Your task to perform on an android device: open the mobile data screen to see how much data has been used Image 0: 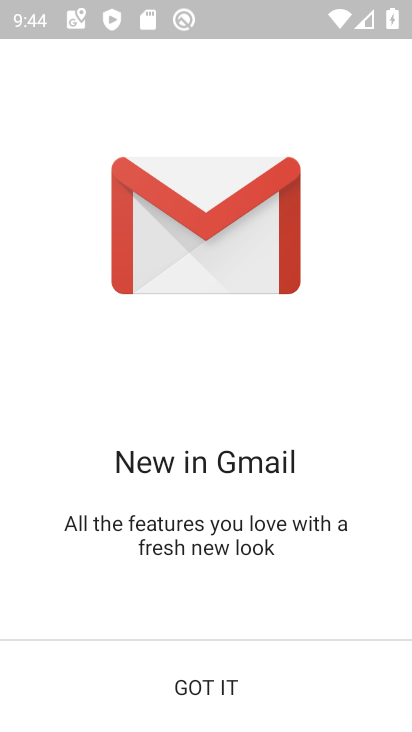
Step 0: click (212, 693)
Your task to perform on an android device: open the mobile data screen to see how much data has been used Image 1: 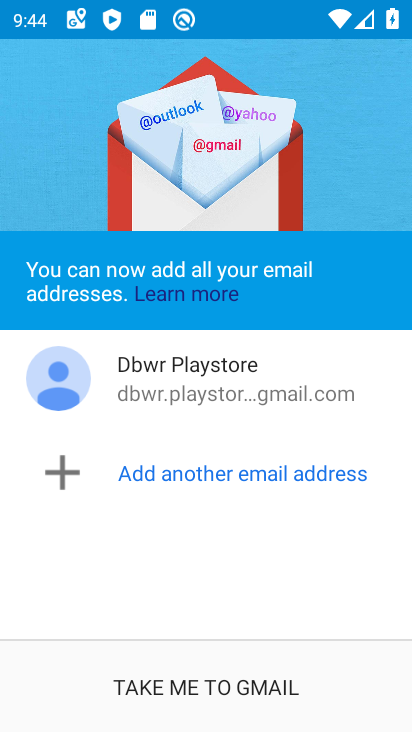
Step 1: click (201, 706)
Your task to perform on an android device: open the mobile data screen to see how much data has been used Image 2: 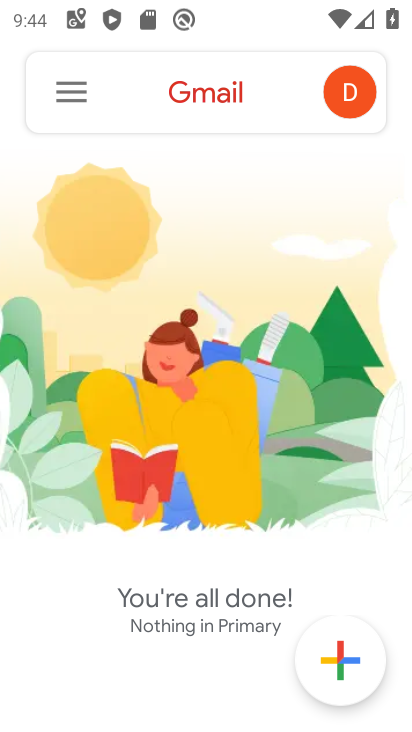
Step 2: press home button
Your task to perform on an android device: open the mobile data screen to see how much data has been used Image 3: 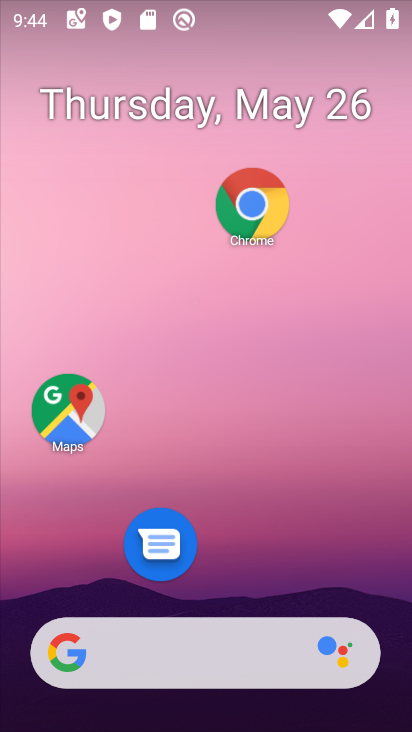
Step 3: drag from (214, 594) to (211, 47)
Your task to perform on an android device: open the mobile data screen to see how much data has been used Image 4: 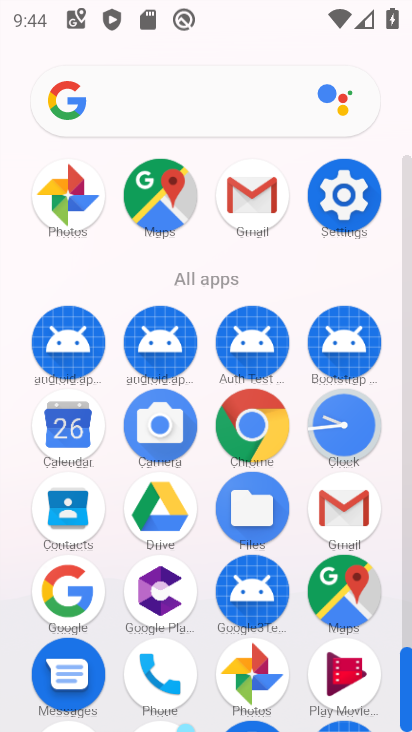
Step 4: click (341, 189)
Your task to perform on an android device: open the mobile data screen to see how much data has been used Image 5: 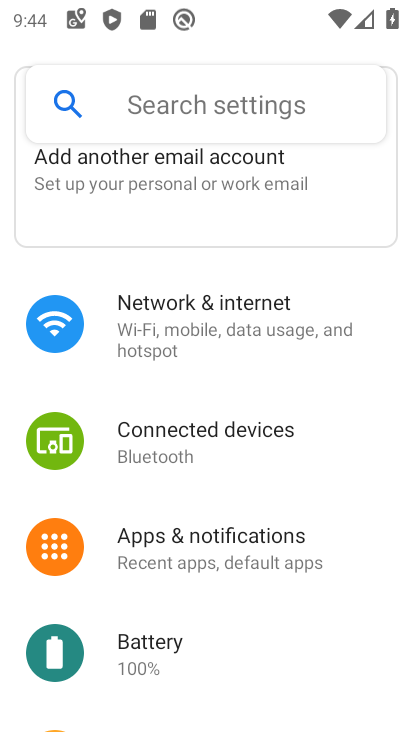
Step 5: click (203, 340)
Your task to perform on an android device: open the mobile data screen to see how much data has been used Image 6: 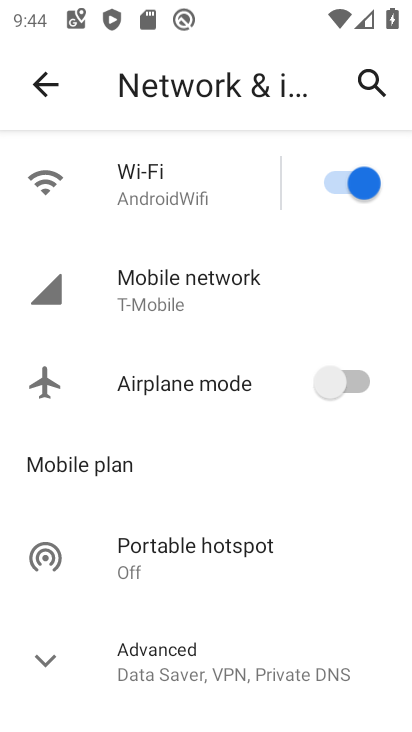
Step 6: click (192, 292)
Your task to perform on an android device: open the mobile data screen to see how much data has been used Image 7: 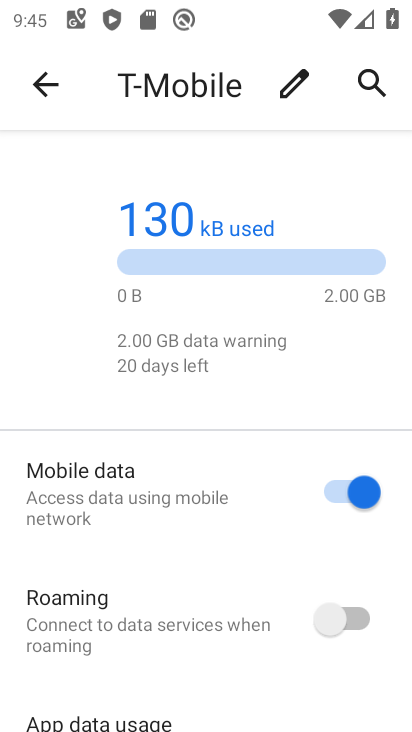
Step 7: drag from (189, 672) to (211, 241)
Your task to perform on an android device: open the mobile data screen to see how much data has been used Image 8: 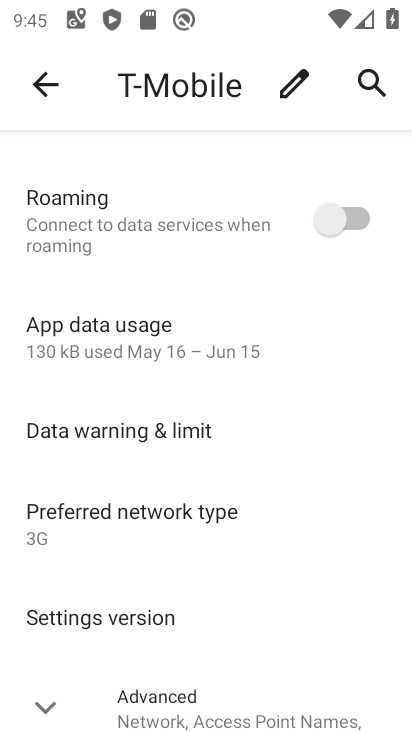
Step 8: click (185, 327)
Your task to perform on an android device: open the mobile data screen to see how much data has been used Image 9: 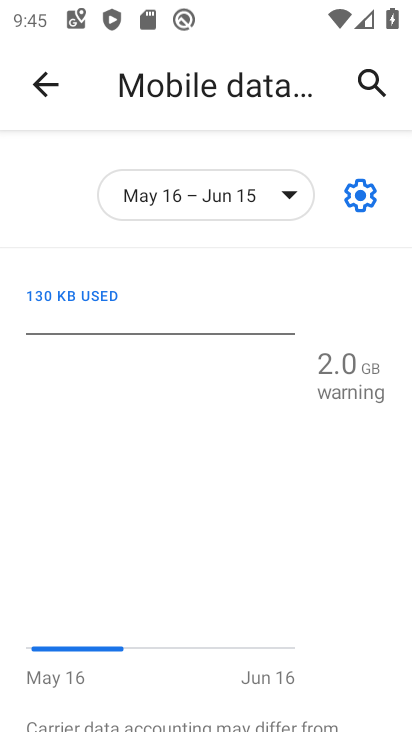
Step 9: task complete